Your task to perform on an android device: Go to network settings Image 0: 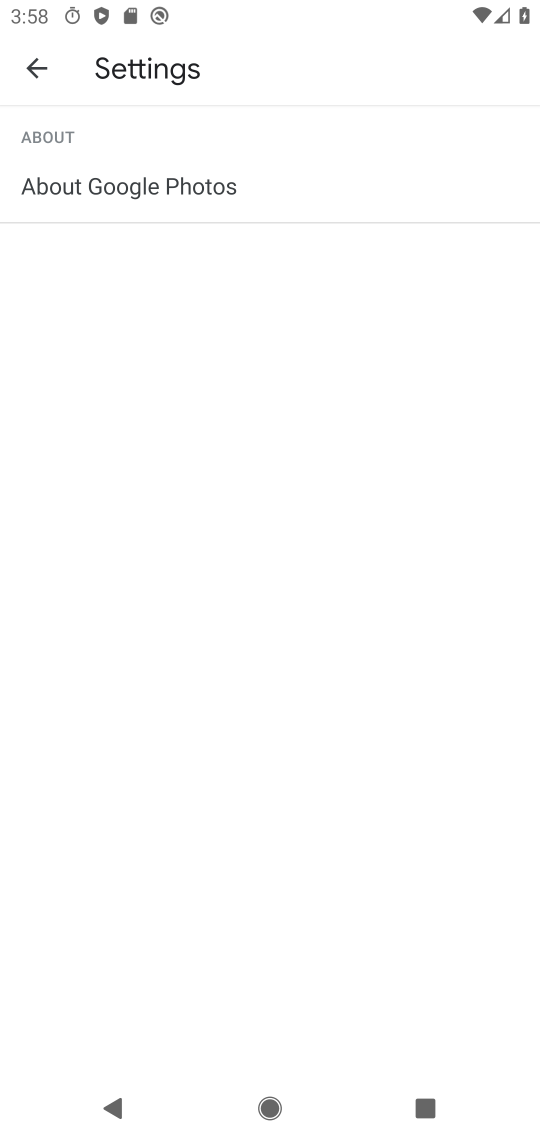
Step 0: press home button
Your task to perform on an android device: Go to network settings Image 1: 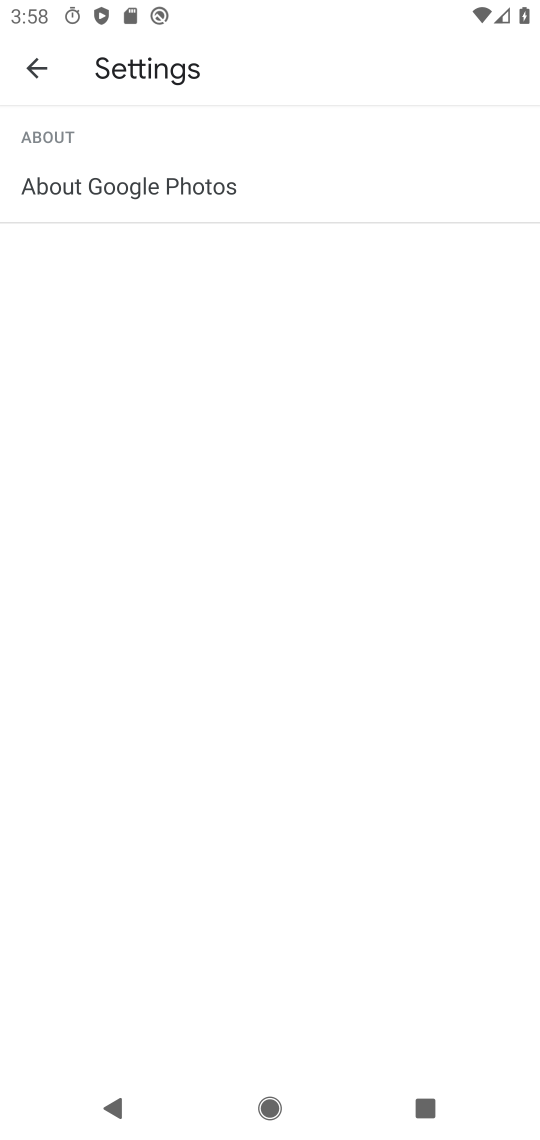
Step 1: press home button
Your task to perform on an android device: Go to network settings Image 2: 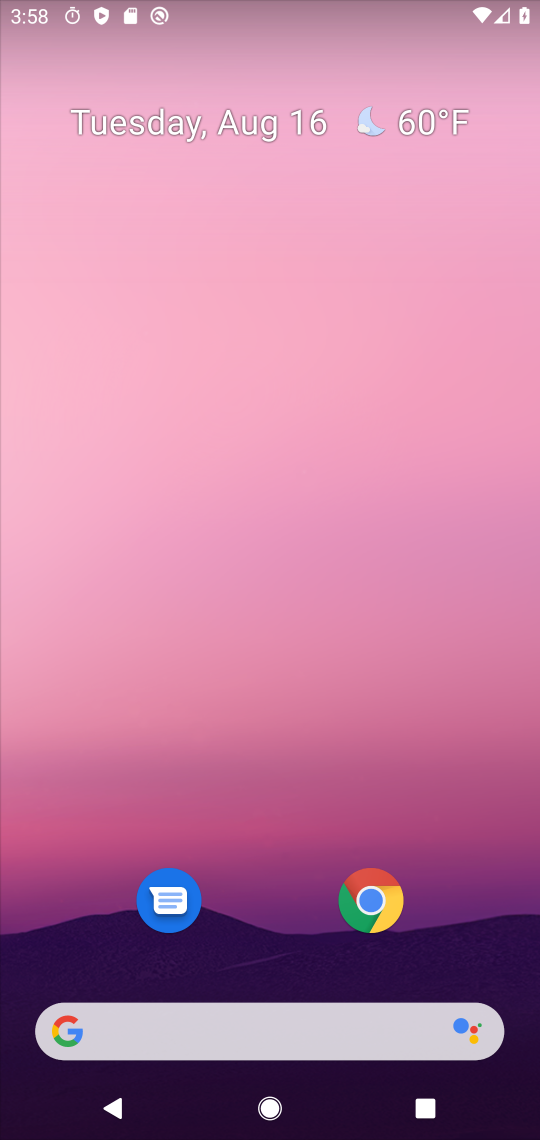
Step 2: press home button
Your task to perform on an android device: Go to network settings Image 3: 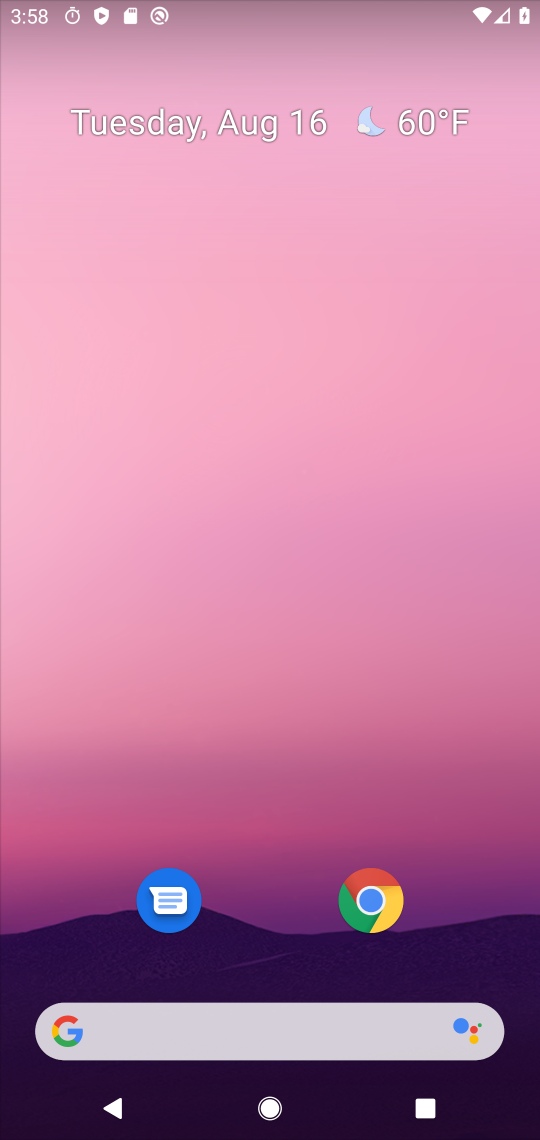
Step 3: drag from (306, 947) to (243, 114)
Your task to perform on an android device: Go to network settings Image 4: 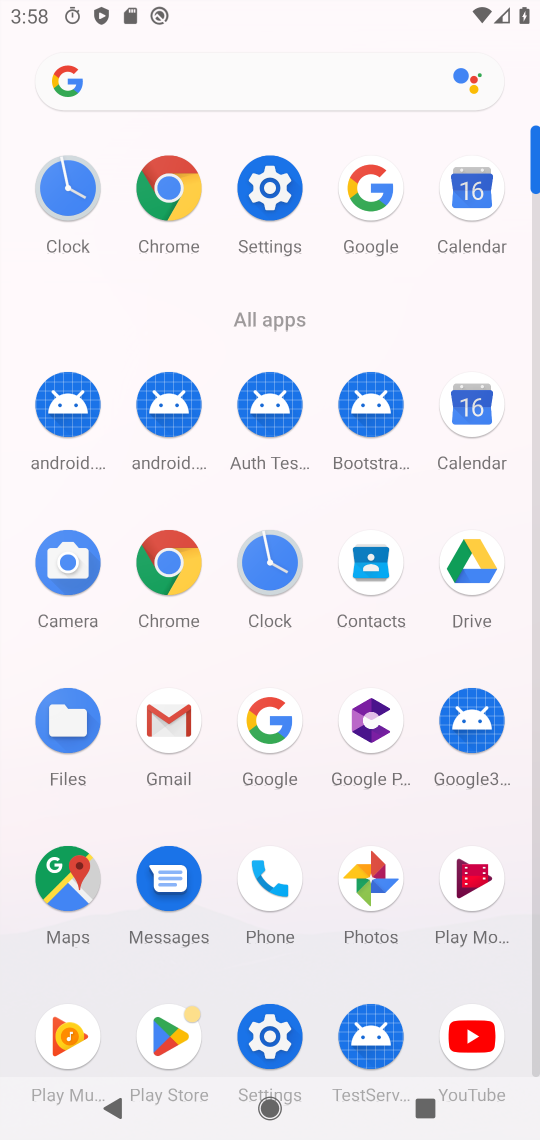
Step 4: click (265, 191)
Your task to perform on an android device: Go to network settings Image 5: 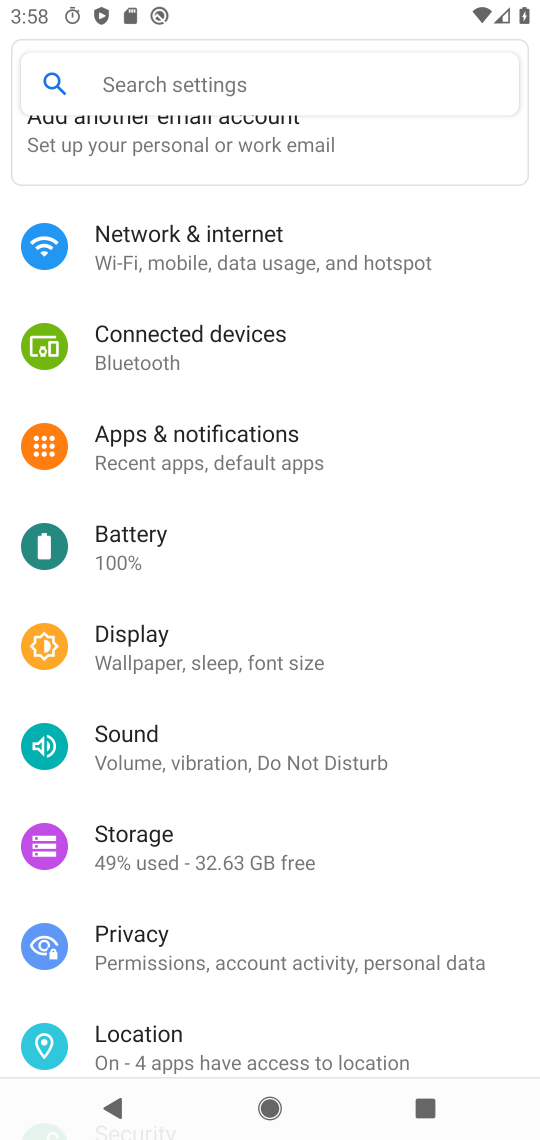
Step 5: click (224, 257)
Your task to perform on an android device: Go to network settings Image 6: 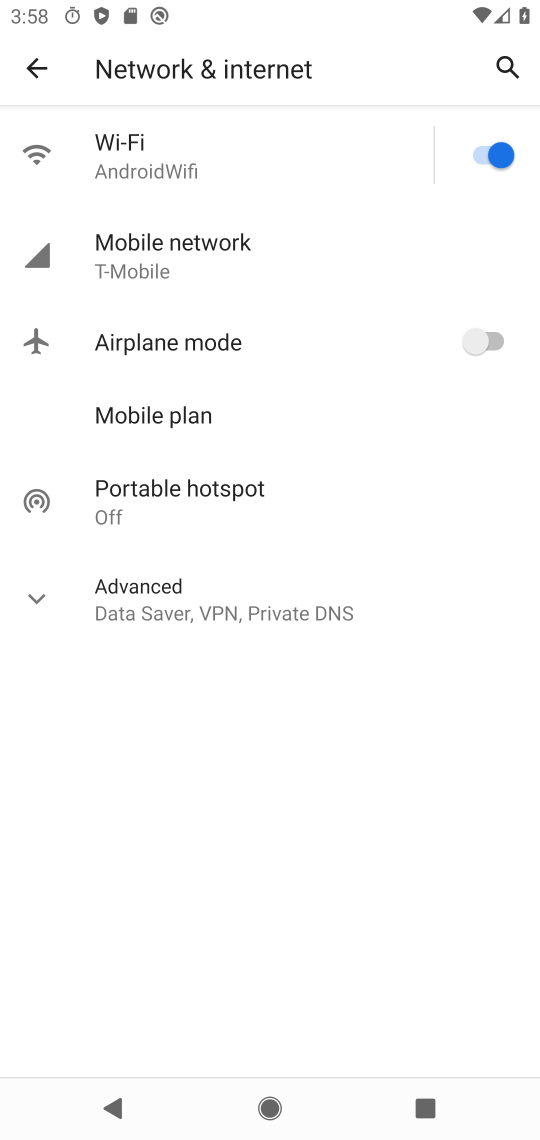
Step 6: click (170, 265)
Your task to perform on an android device: Go to network settings Image 7: 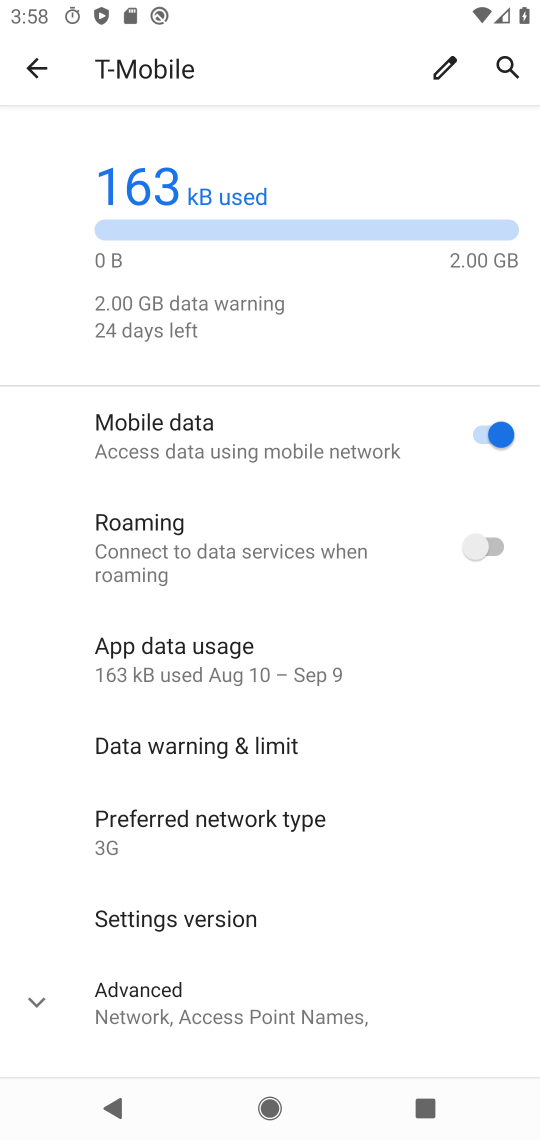
Step 7: task complete